Your task to perform on an android device: Search for Mexican restaurants on Maps Image 0: 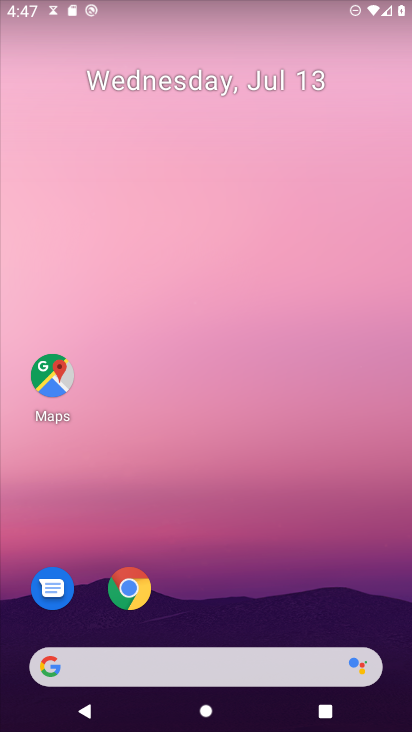
Step 0: drag from (397, 724) to (173, 278)
Your task to perform on an android device: Search for Mexican restaurants on Maps Image 1: 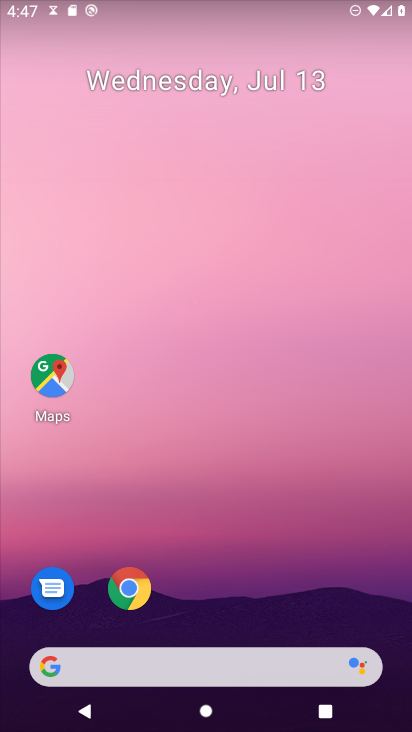
Step 1: drag from (252, 479) to (134, 23)
Your task to perform on an android device: Search for Mexican restaurants on Maps Image 2: 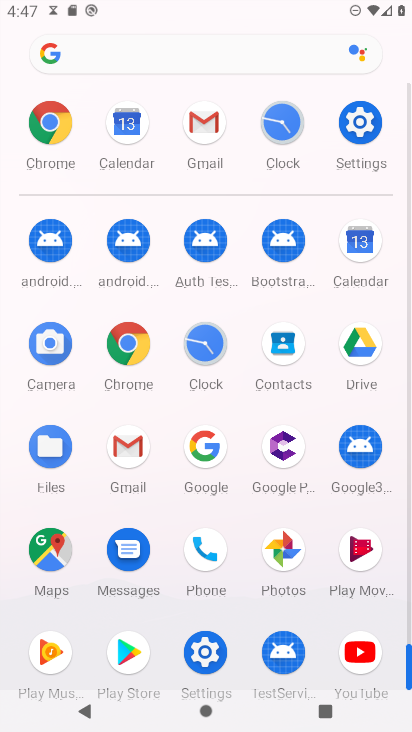
Step 2: click (40, 544)
Your task to perform on an android device: Search for Mexican restaurants on Maps Image 3: 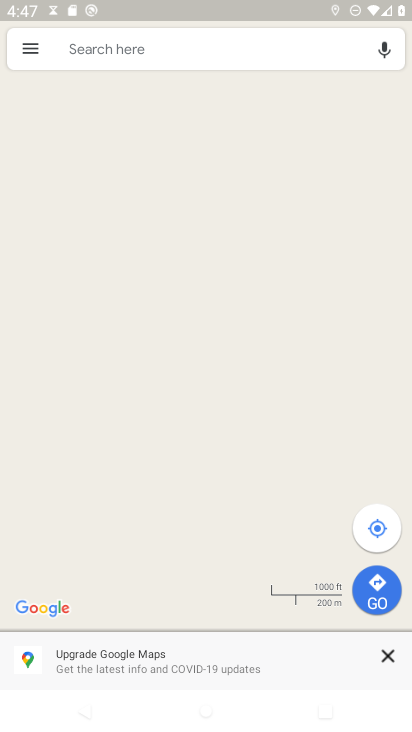
Step 3: click (77, 47)
Your task to perform on an android device: Search for Mexican restaurants on Maps Image 4: 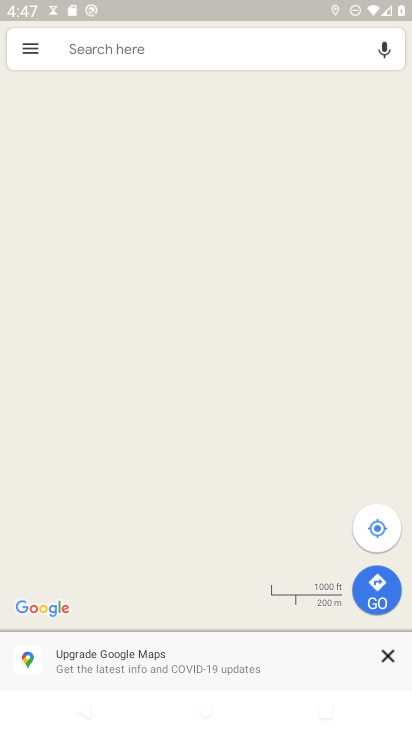
Step 4: click (76, 46)
Your task to perform on an android device: Search for Mexican restaurants on Maps Image 5: 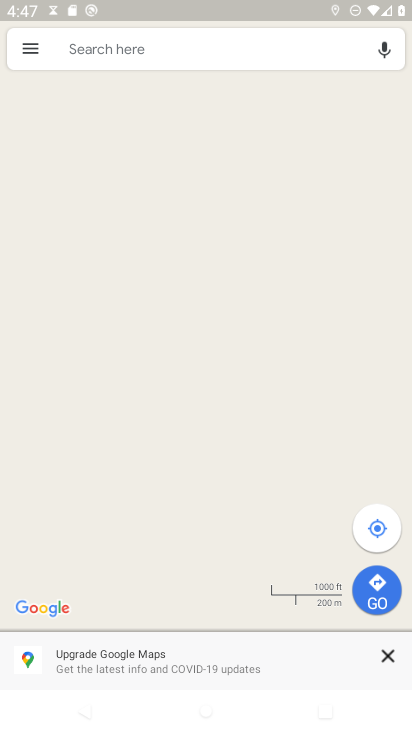
Step 5: click (76, 45)
Your task to perform on an android device: Search for Mexican restaurants on Maps Image 6: 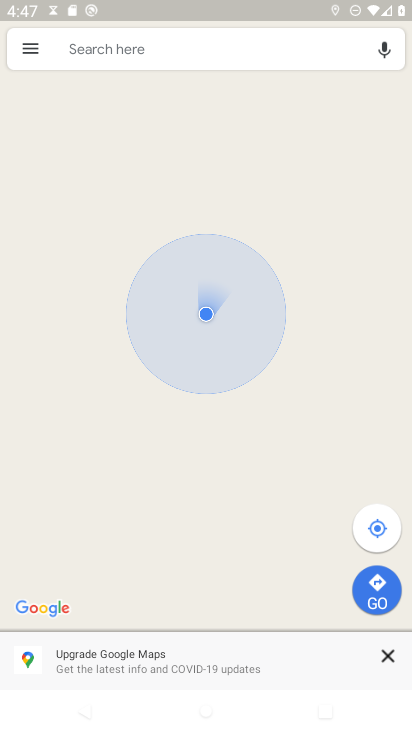
Step 6: click (90, 46)
Your task to perform on an android device: Search for Mexican restaurants on Maps Image 7: 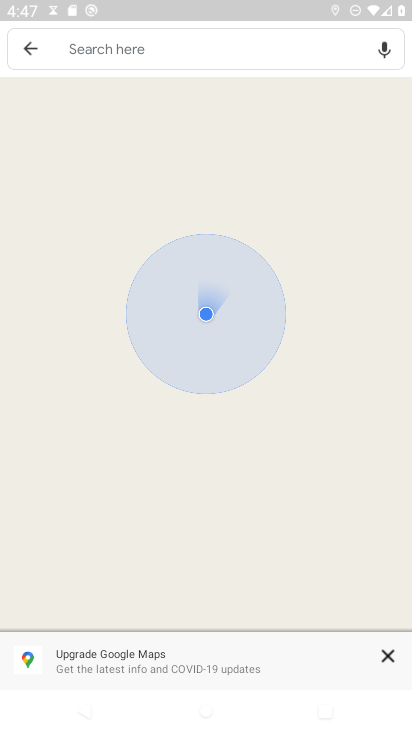
Step 7: click (91, 45)
Your task to perform on an android device: Search for Mexican restaurants on Maps Image 8: 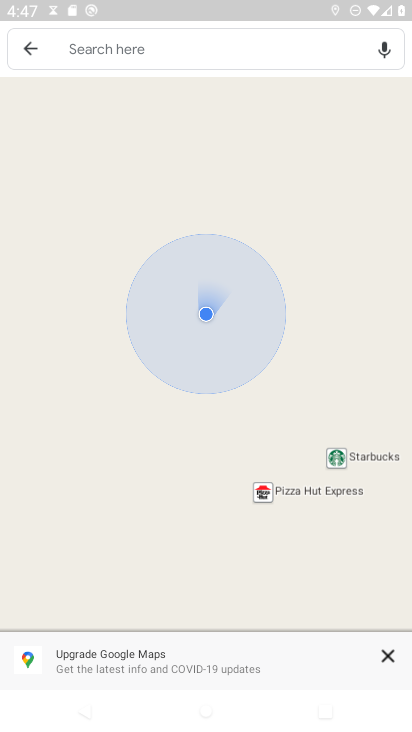
Step 8: click (96, 51)
Your task to perform on an android device: Search for Mexican restaurants on Maps Image 9: 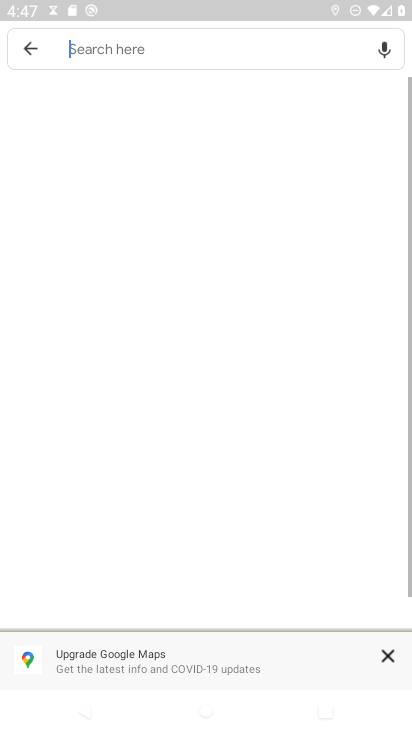
Step 9: click (97, 52)
Your task to perform on an android device: Search for Mexican restaurants on Maps Image 10: 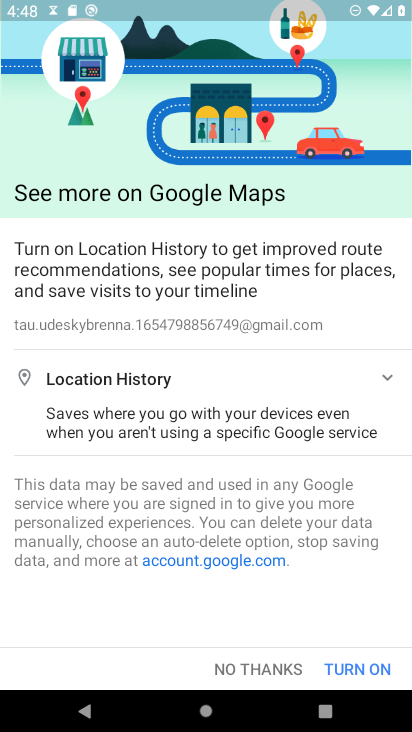
Step 10: type "mexican restuarants"
Your task to perform on an android device: Search for Mexican restaurants on Maps Image 11: 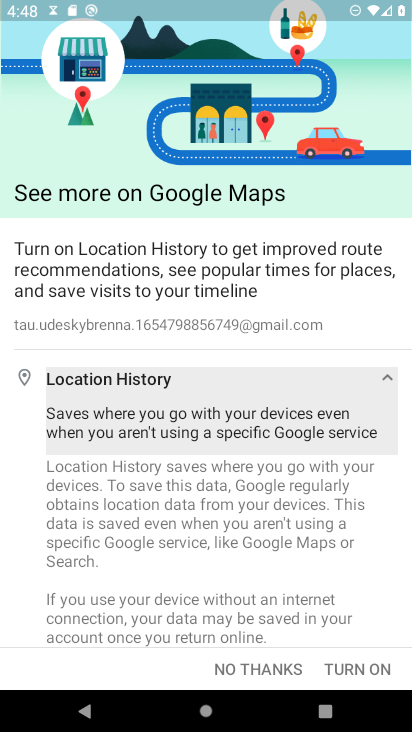
Step 11: click (247, 667)
Your task to perform on an android device: Search for Mexican restaurants on Maps Image 12: 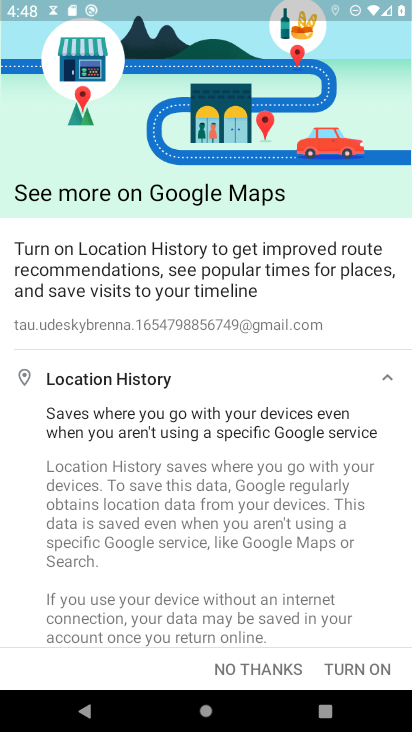
Step 12: click (264, 660)
Your task to perform on an android device: Search for Mexican restaurants on Maps Image 13: 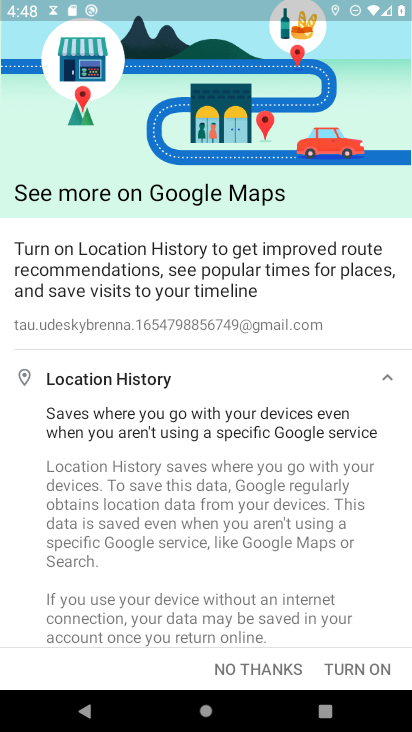
Step 13: click (264, 662)
Your task to perform on an android device: Search for Mexican restaurants on Maps Image 14: 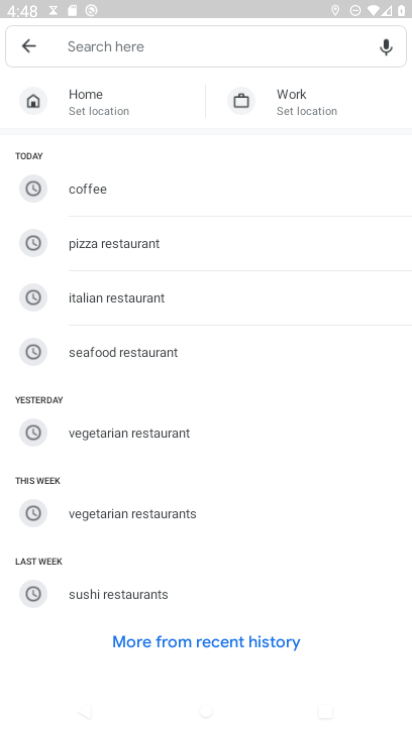
Step 14: click (264, 663)
Your task to perform on an android device: Search for Mexican restaurants on Maps Image 15: 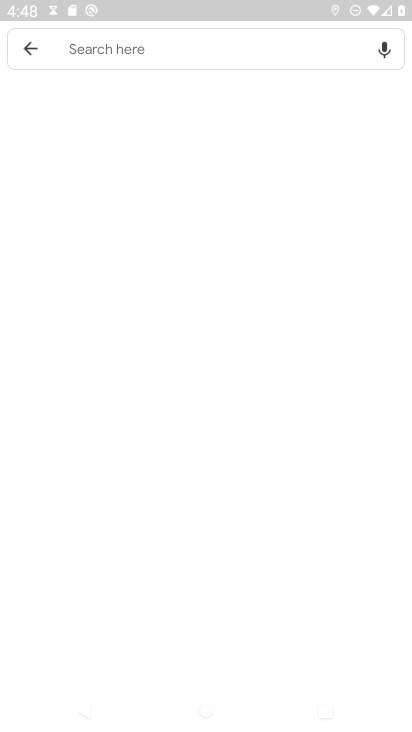
Step 15: click (264, 662)
Your task to perform on an android device: Search for Mexican restaurants on Maps Image 16: 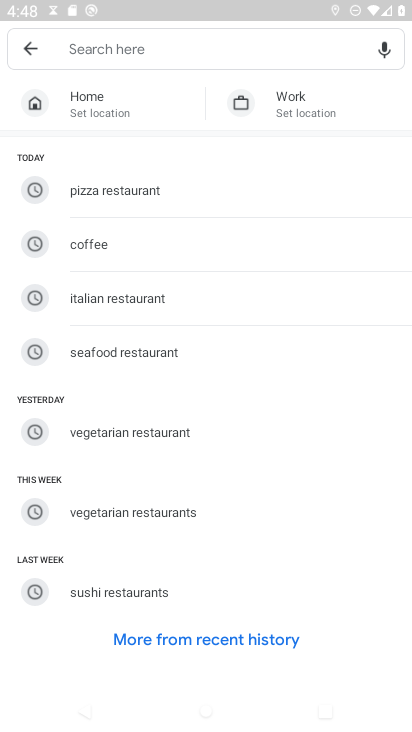
Step 16: click (102, 42)
Your task to perform on an android device: Search for Mexican restaurants on Maps Image 17: 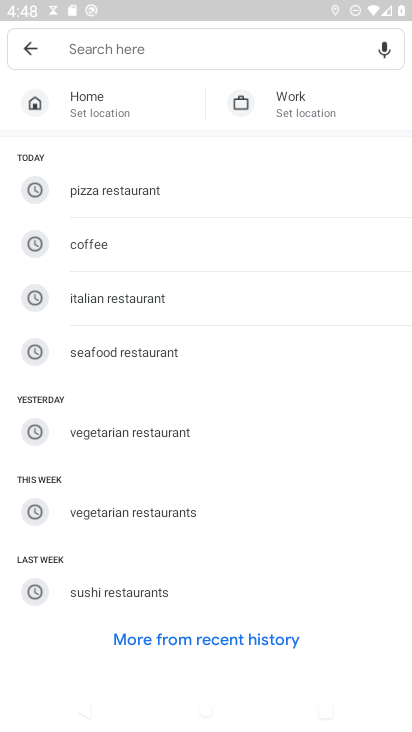
Step 17: click (101, 42)
Your task to perform on an android device: Search for Mexican restaurants on Maps Image 18: 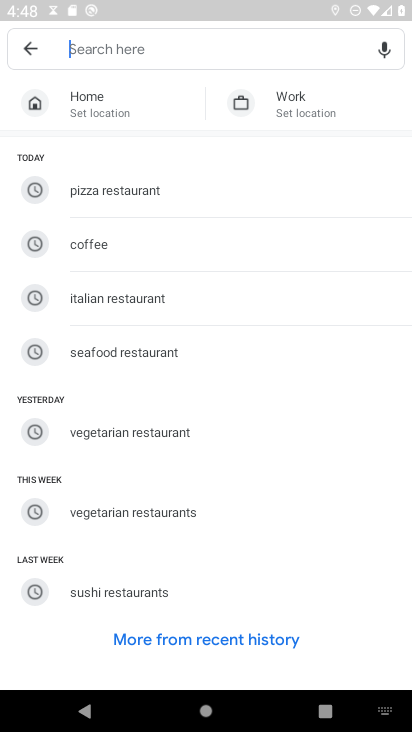
Step 18: type "mexican restuarants"
Your task to perform on an android device: Search for Mexican restaurants on Maps Image 19: 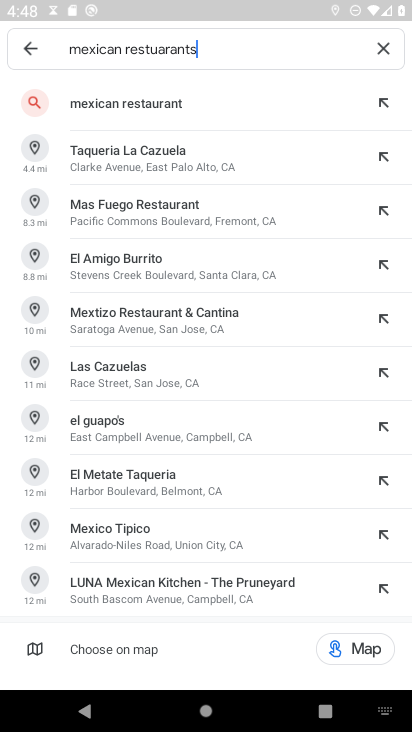
Step 19: click (147, 102)
Your task to perform on an android device: Search for Mexican restaurants on Maps Image 20: 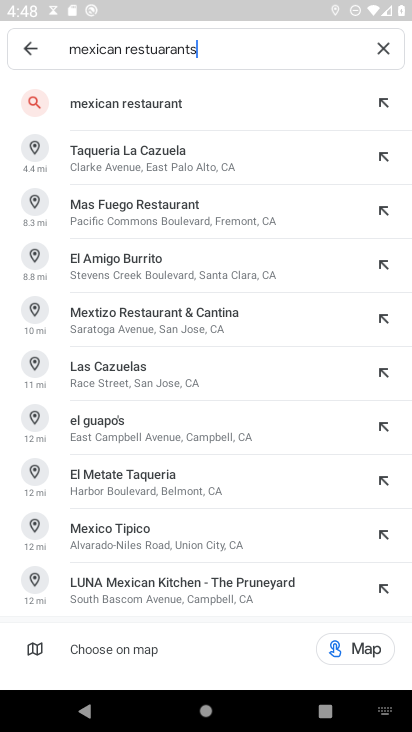
Step 20: click (147, 102)
Your task to perform on an android device: Search for Mexican restaurants on Maps Image 21: 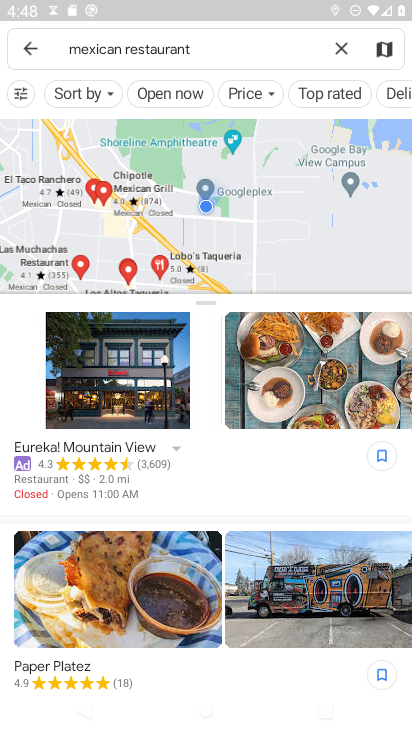
Step 21: task complete